Your task to perform on an android device: Open Chrome and go to settings Image 0: 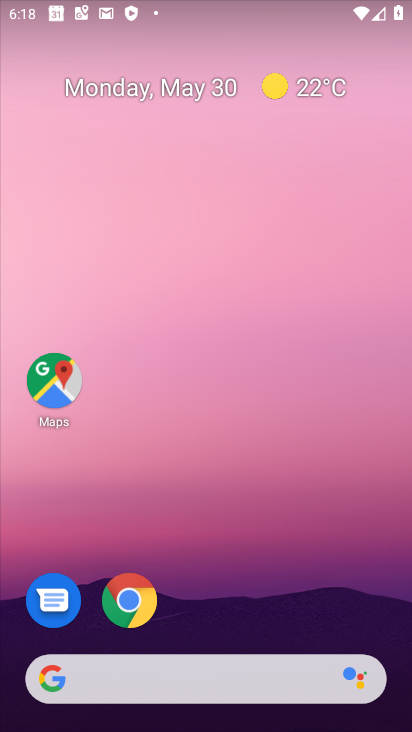
Step 0: press home button
Your task to perform on an android device: Open Chrome and go to settings Image 1: 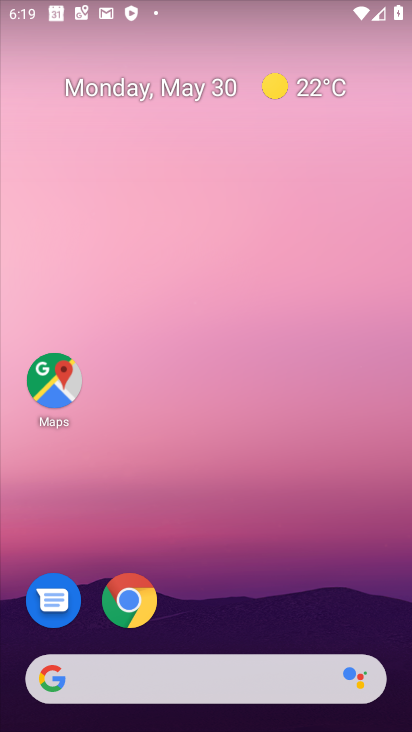
Step 1: click (131, 598)
Your task to perform on an android device: Open Chrome and go to settings Image 2: 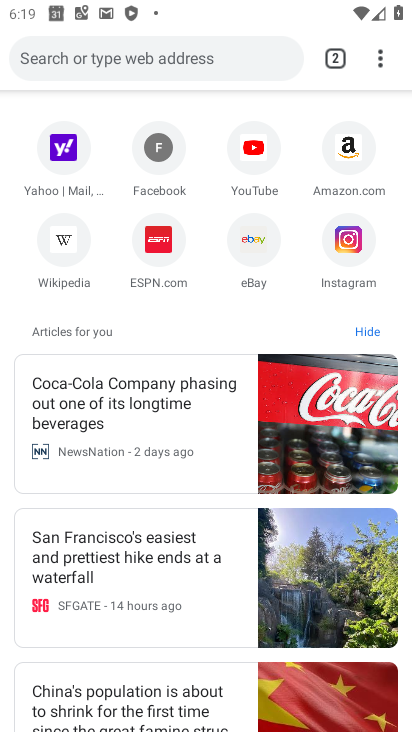
Step 2: task complete